Your task to perform on an android device: Open Google Chrome and click the shortcut for Amazon.com Image 0: 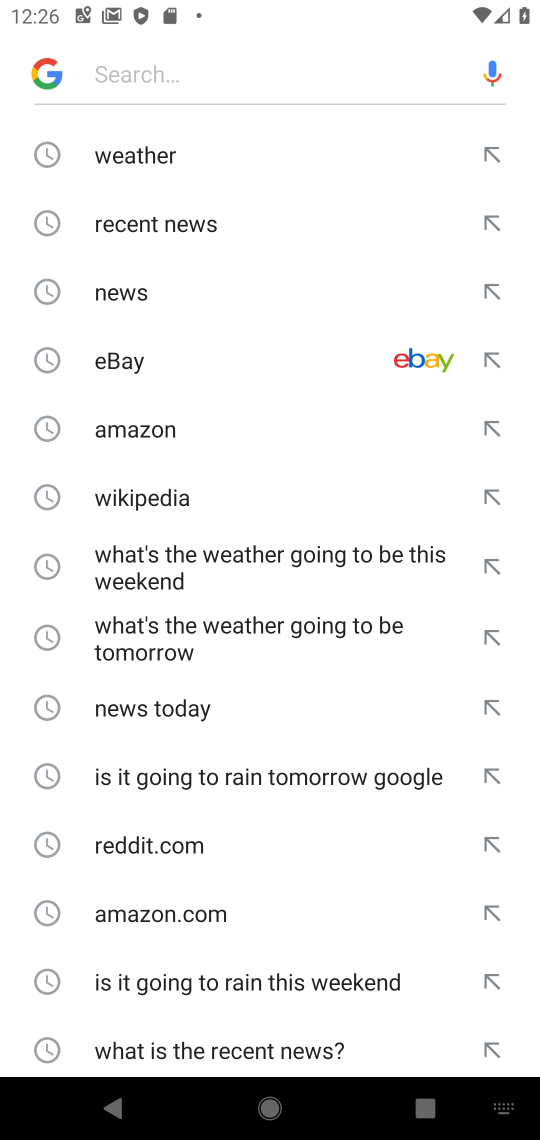
Step 0: press home button
Your task to perform on an android device: Open Google Chrome and click the shortcut for Amazon.com Image 1: 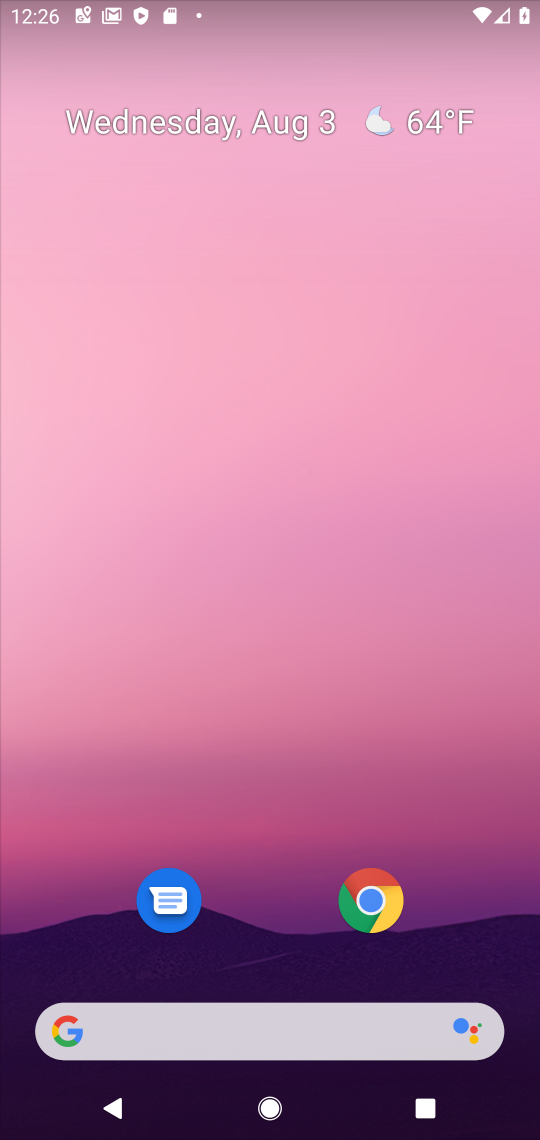
Step 1: drag from (259, 889) to (391, 211)
Your task to perform on an android device: Open Google Chrome and click the shortcut for Amazon.com Image 2: 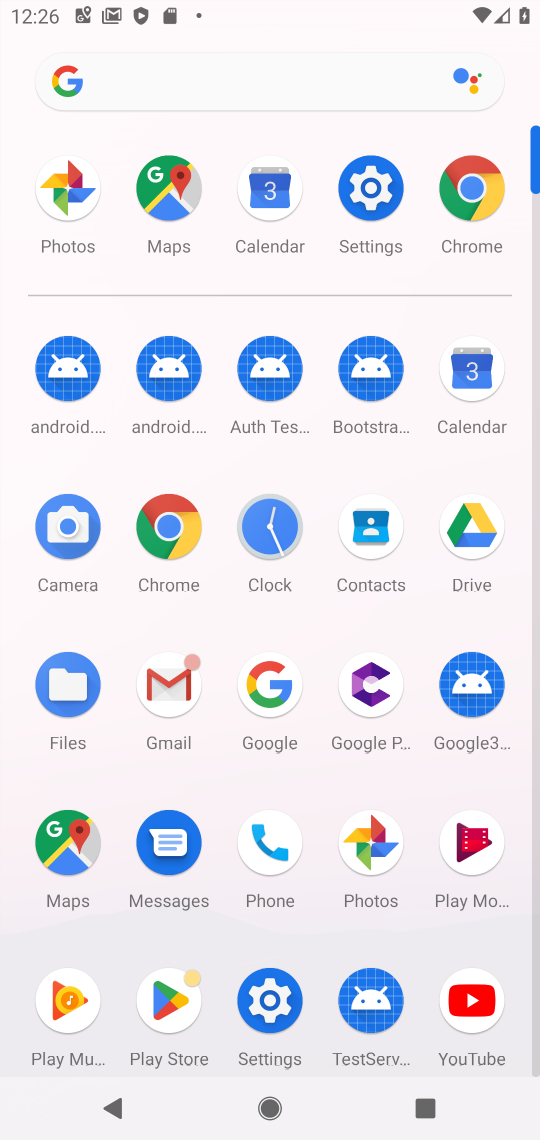
Step 2: click (171, 526)
Your task to perform on an android device: Open Google Chrome and click the shortcut for Amazon.com Image 3: 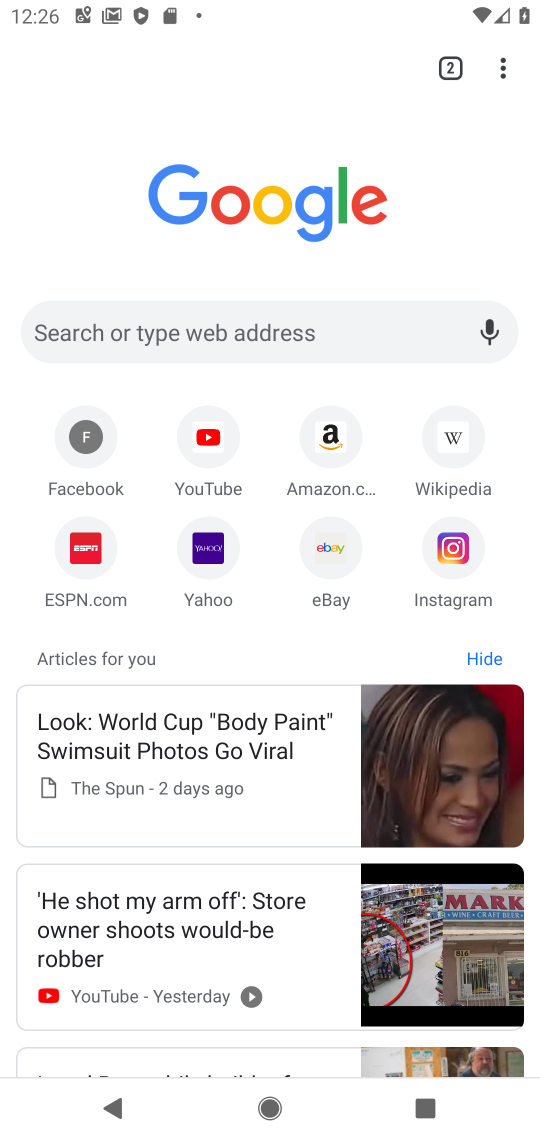
Step 3: click (344, 436)
Your task to perform on an android device: Open Google Chrome and click the shortcut for Amazon.com Image 4: 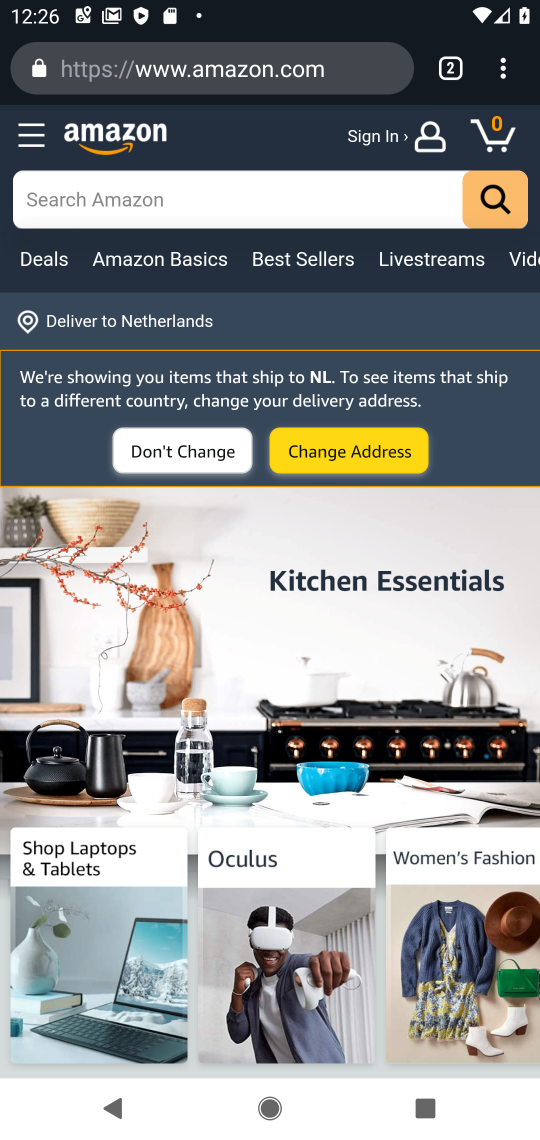
Step 4: task complete